Your task to perform on an android device: Go to privacy settings Image 0: 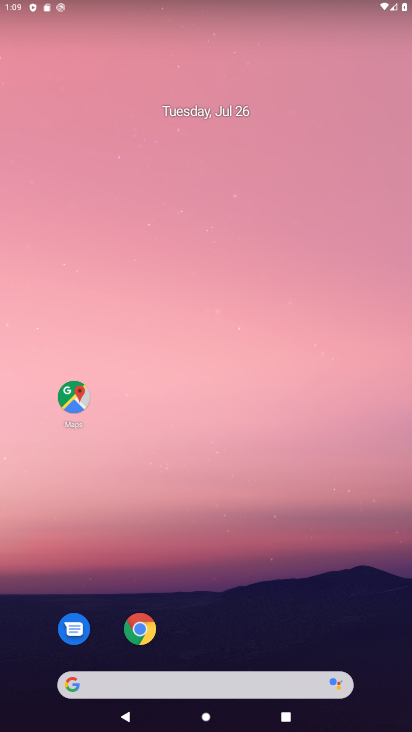
Step 0: drag from (261, 571) to (245, 135)
Your task to perform on an android device: Go to privacy settings Image 1: 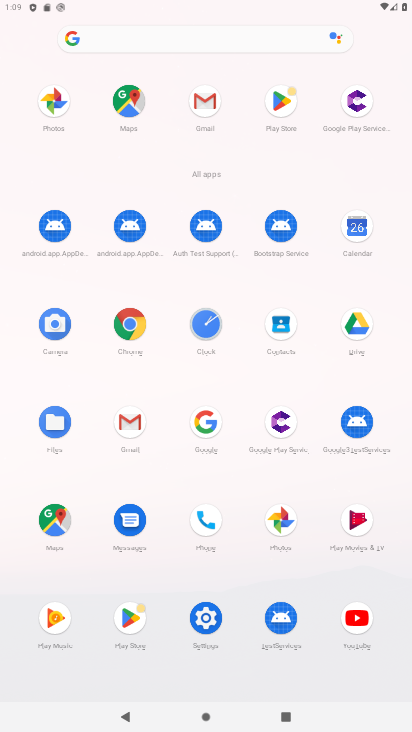
Step 1: click (206, 623)
Your task to perform on an android device: Go to privacy settings Image 2: 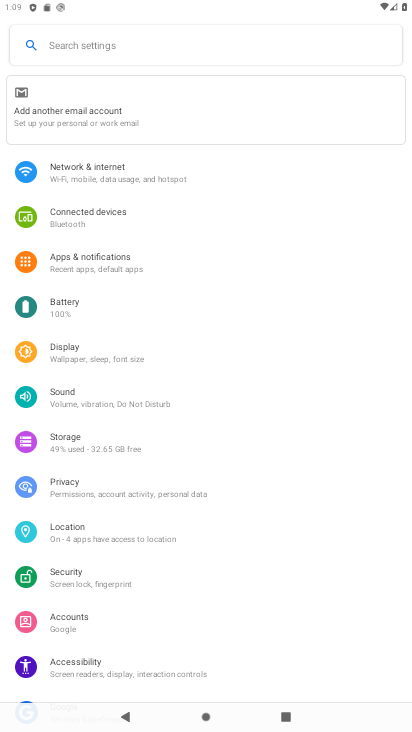
Step 2: click (77, 490)
Your task to perform on an android device: Go to privacy settings Image 3: 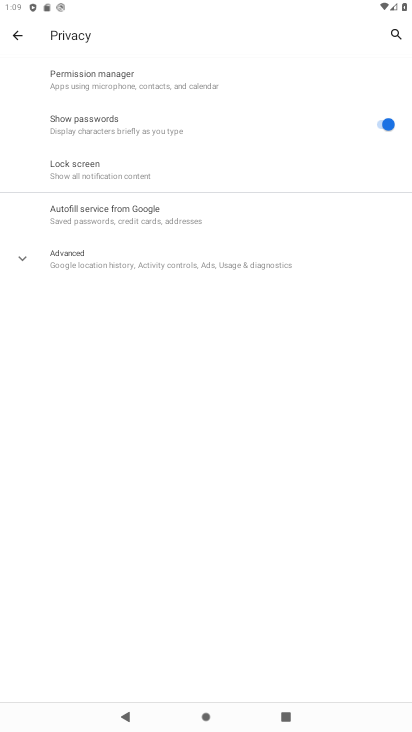
Step 3: task complete